Your task to perform on an android device: turn on translation in the chrome app Image 0: 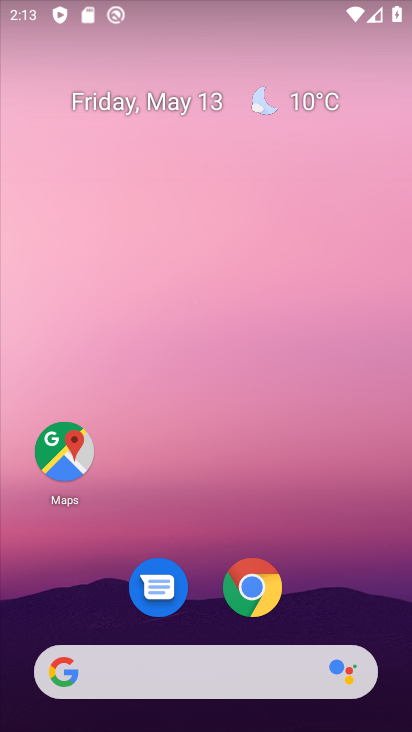
Step 0: click (248, 591)
Your task to perform on an android device: turn on translation in the chrome app Image 1: 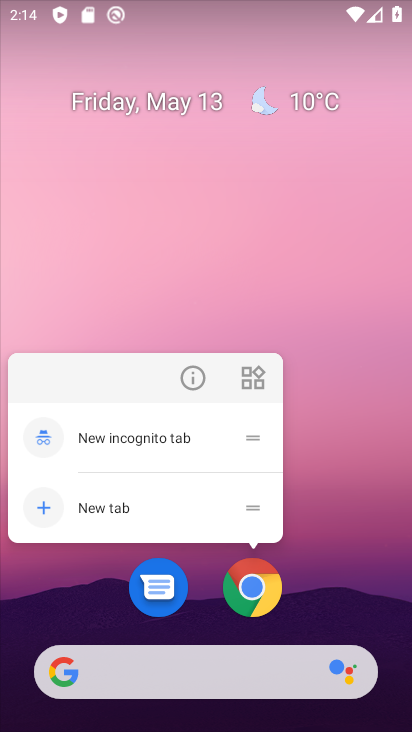
Step 1: click (248, 588)
Your task to perform on an android device: turn on translation in the chrome app Image 2: 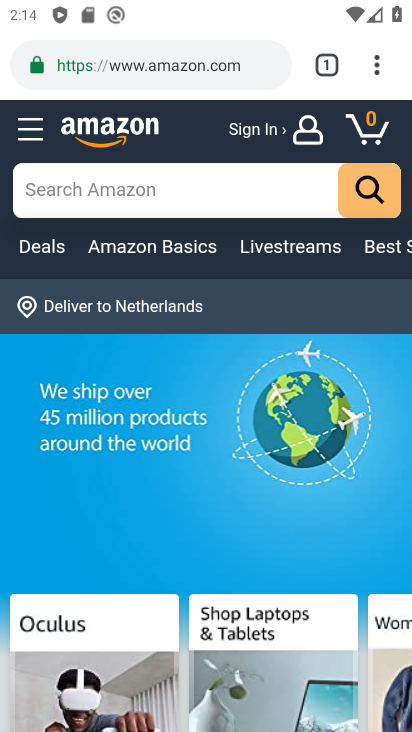
Step 2: click (377, 56)
Your task to perform on an android device: turn on translation in the chrome app Image 3: 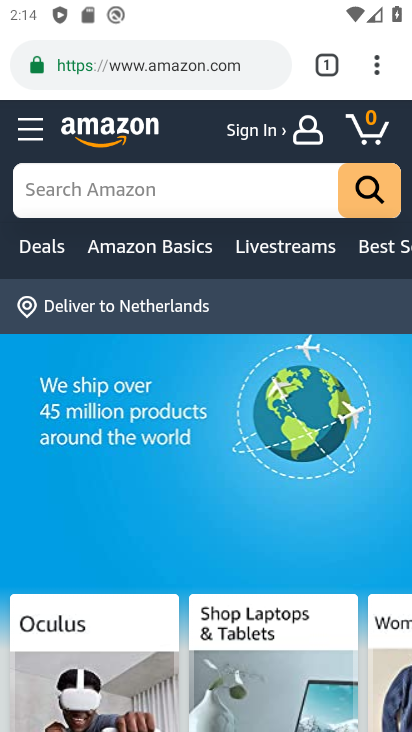
Step 3: click (379, 47)
Your task to perform on an android device: turn on translation in the chrome app Image 4: 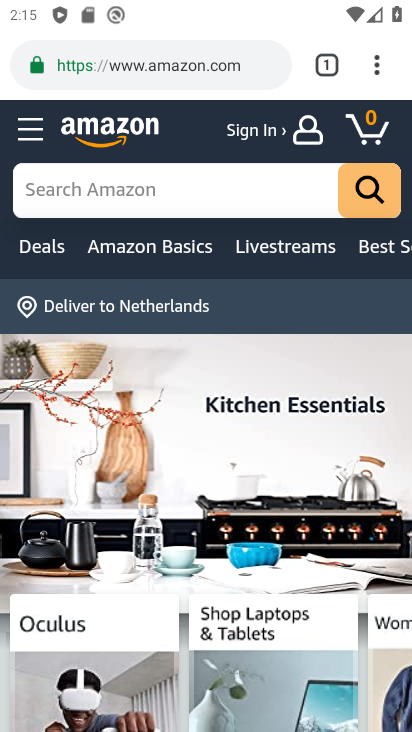
Step 4: click (369, 58)
Your task to perform on an android device: turn on translation in the chrome app Image 5: 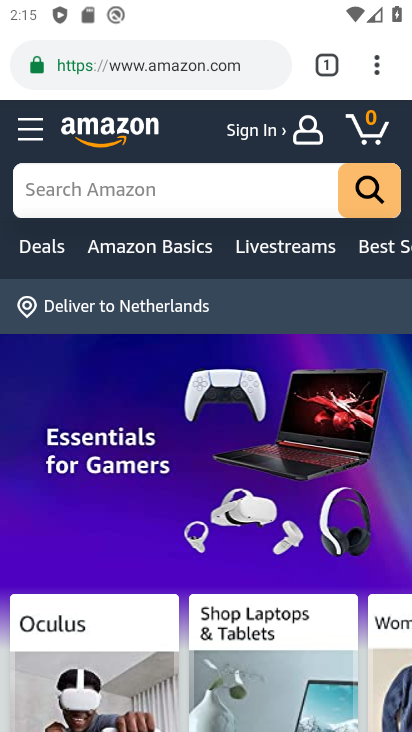
Step 5: click (367, 72)
Your task to perform on an android device: turn on translation in the chrome app Image 6: 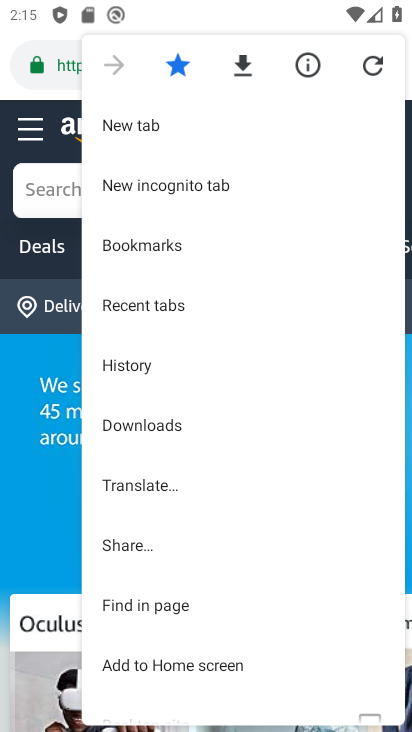
Step 6: drag from (214, 637) to (263, 167)
Your task to perform on an android device: turn on translation in the chrome app Image 7: 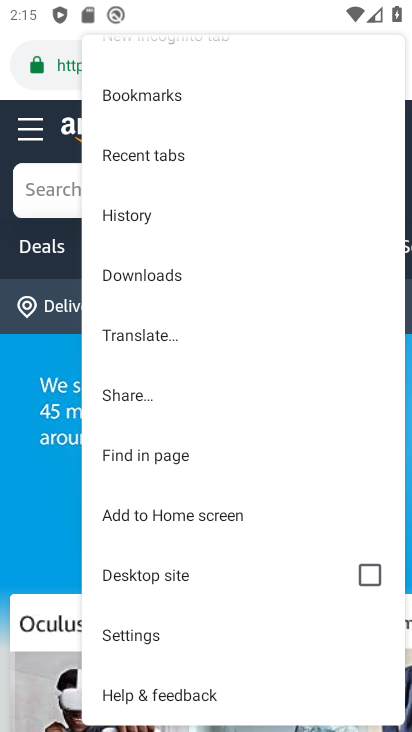
Step 7: click (175, 639)
Your task to perform on an android device: turn on translation in the chrome app Image 8: 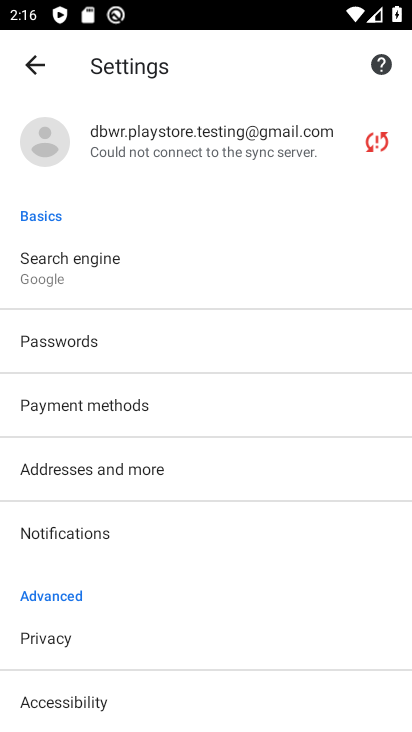
Step 8: drag from (74, 685) to (179, 345)
Your task to perform on an android device: turn on translation in the chrome app Image 9: 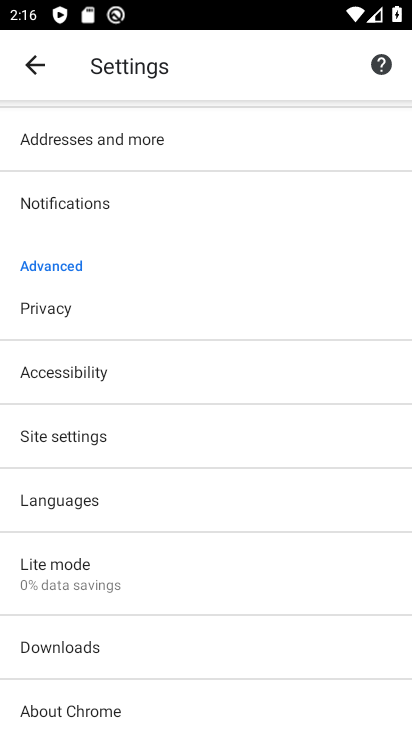
Step 9: click (92, 498)
Your task to perform on an android device: turn on translation in the chrome app Image 10: 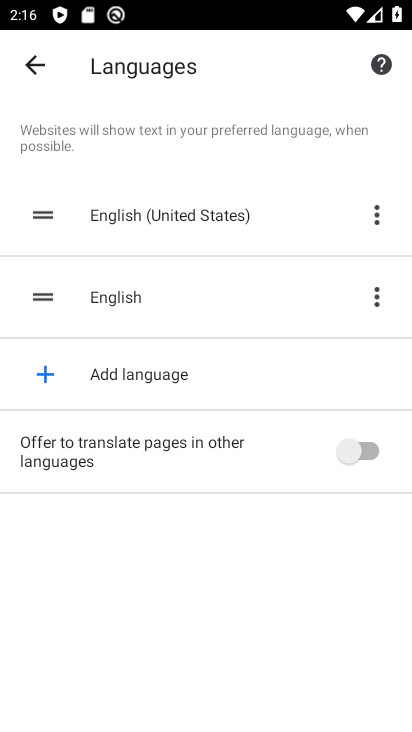
Step 10: click (329, 455)
Your task to perform on an android device: turn on translation in the chrome app Image 11: 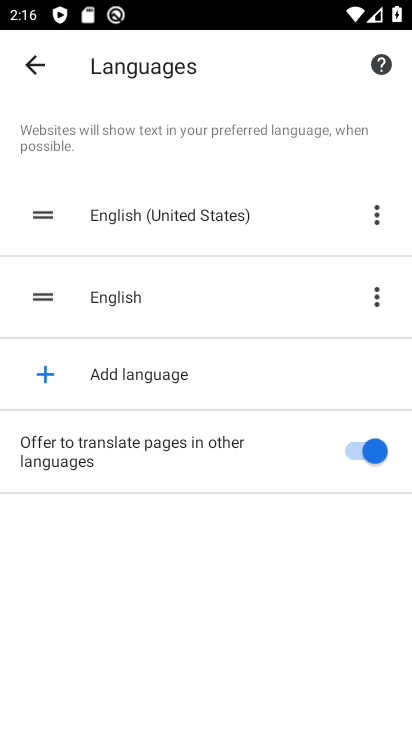
Step 11: task complete